Your task to perform on an android device: Go to Google maps Image 0: 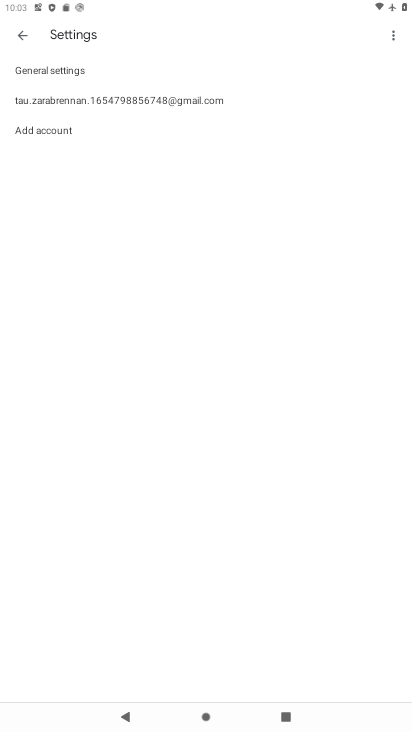
Step 0: press home button
Your task to perform on an android device: Go to Google maps Image 1: 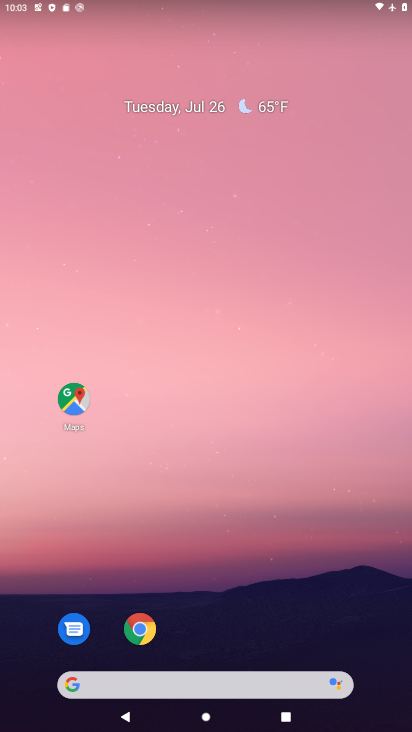
Step 1: drag from (321, 601) to (347, 82)
Your task to perform on an android device: Go to Google maps Image 2: 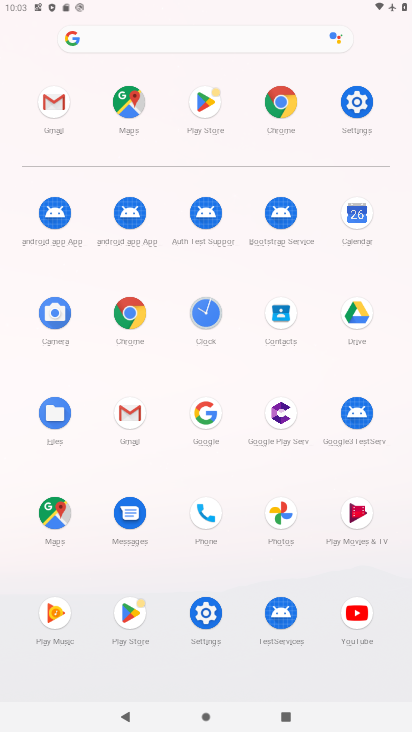
Step 2: click (141, 105)
Your task to perform on an android device: Go to Google maps Image 3: 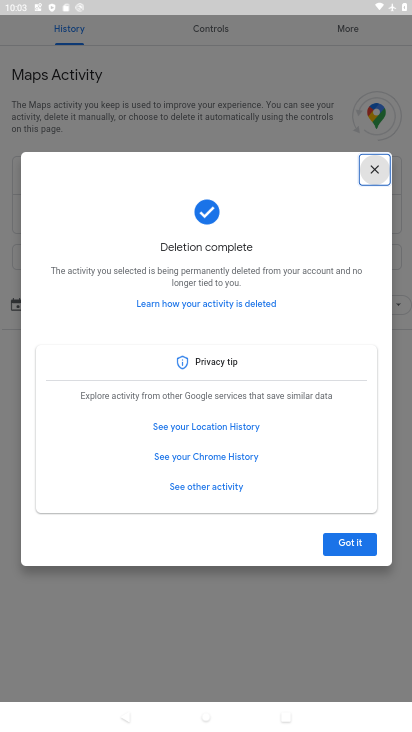
Step 3: click (353, 534)
Your task to perform on an android device: Go to Google maps Image 4: 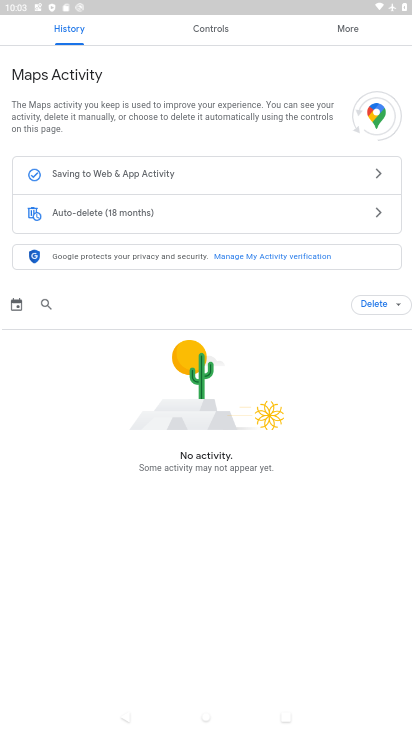
Step 4: task complete